Your task to perform on an android device: toggle javascript in the chrome app Image 0: 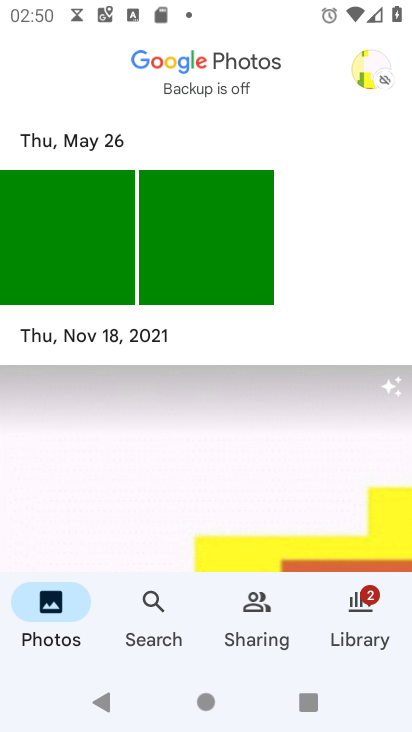
Step 0: press home button
Your task to perform on an android device: toggle javascript in the chrome app Image 1: 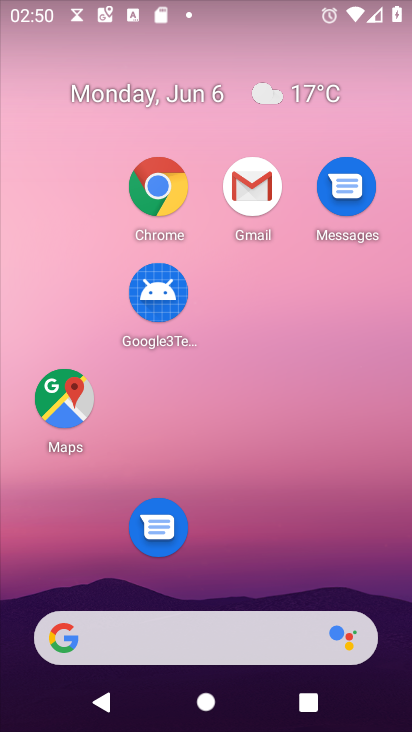
Step 1: click (162, 190)
Your task to perform on an android device: toggle javascript in the chrome app Image 2: 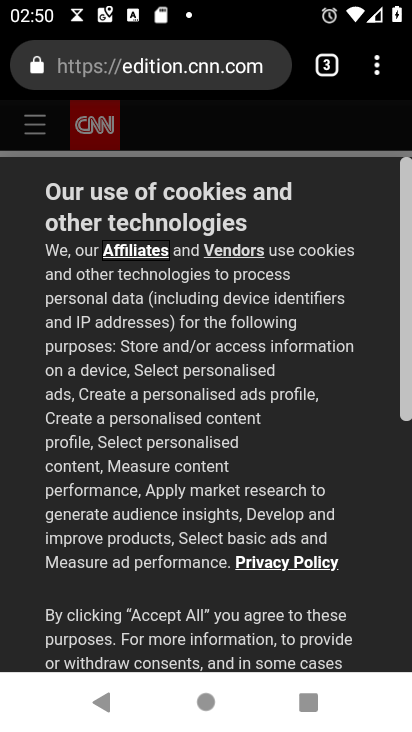
Step 2: click (370, 64)
Your task to perform on an android device: toggle javascript in the chrome app Image 3: 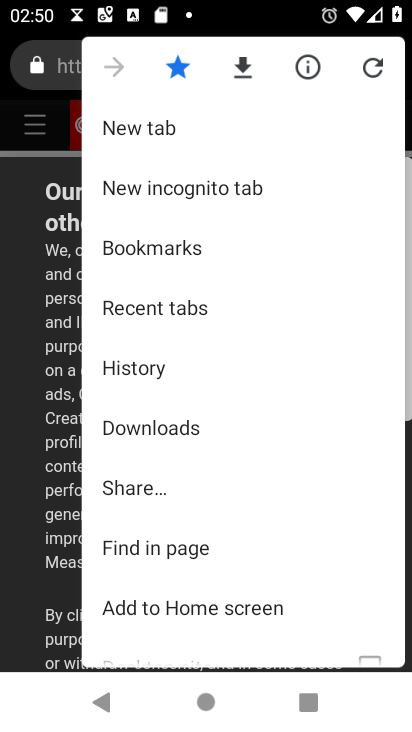
Step 3: drag from (299, 488) to (295, 204)
Your task to perform on an android device: toggle javascript in the chrome app Image 4: 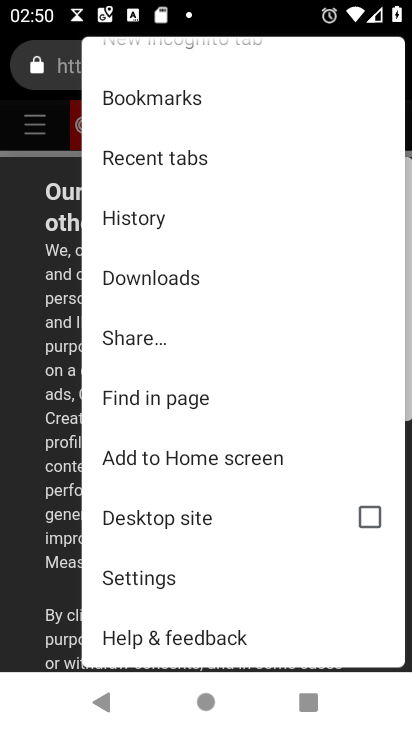
Step 4: click (121, 584)
Your task to perform on an android device: toggle javascript in the chrome app Image 5: 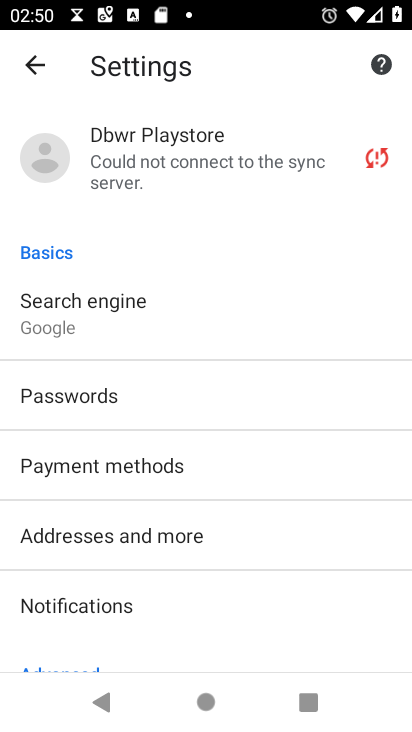
Step 5: click (275, 576)
Your task to perform on an android device: toggle javascript in the chrome app Image 6: 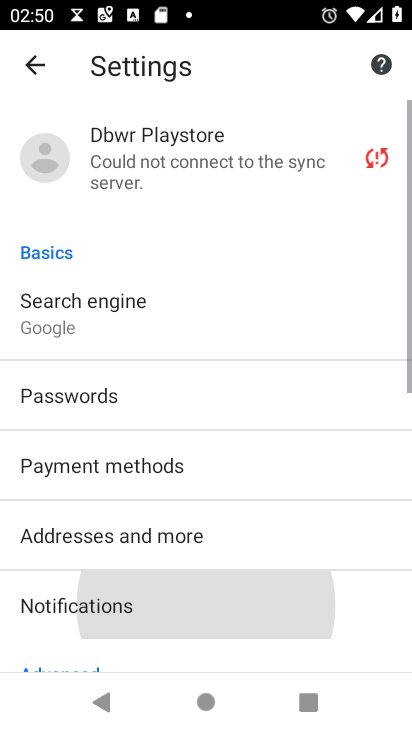
Step 6: drag from (275, 576) to (242, 188)
Your task to perform on an android device: toggle javascript in the chrome app Image 7: 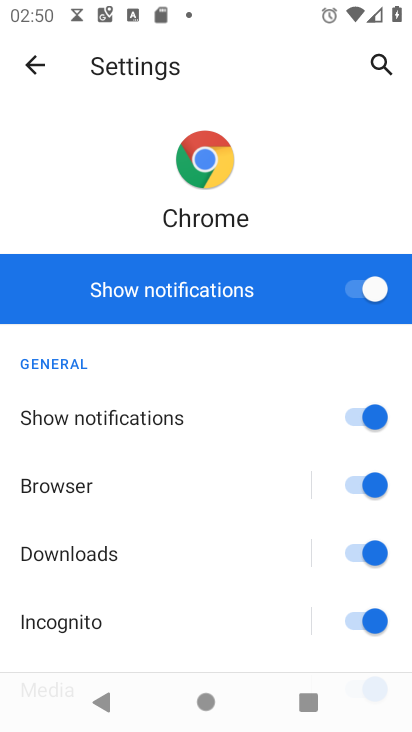
Step 7: click (30, 59)
Your task to perform on an android device: toggle javascript in the chrome app Image 8: 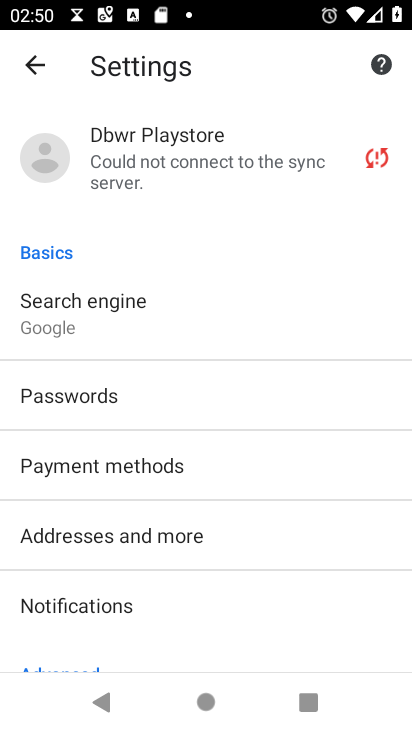
Step 8: drag from (293, 592) to (227, 131)
Your task to perform on an android device: toggle javascript in the chrome app Image 9: 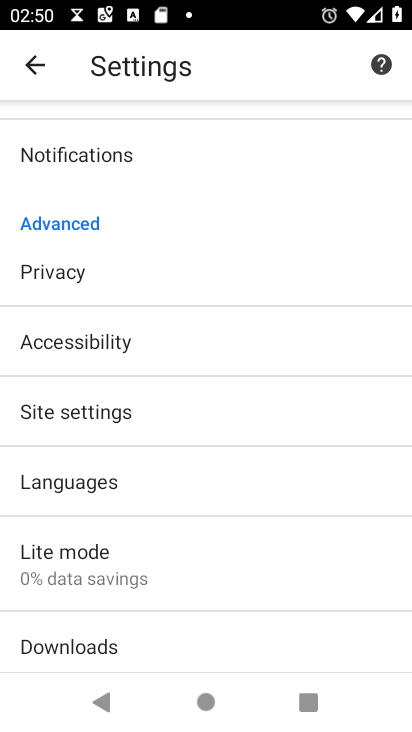
Step 9: click (102, 411)
Your task to perform on an android device: toggle javascript in the chrome app Image 10: 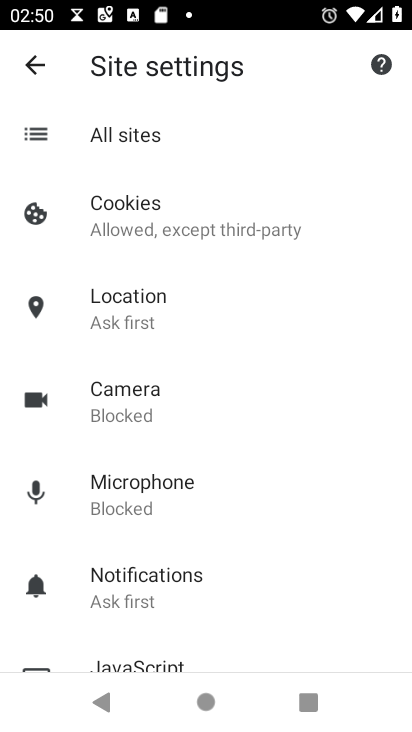
Step 10: click (200, 659)
Your task to perform on an android device: toggle javascript in the chrome app Image 11: 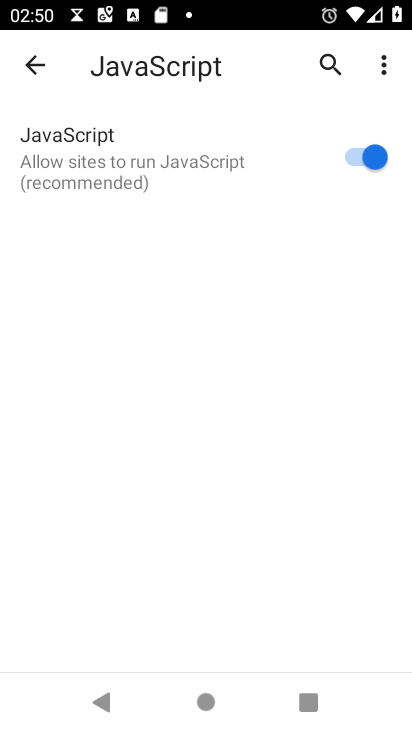
Step 11: click (348, 151)
Your task to perform on an android device: toggle javascript in the chrome app Image 12: 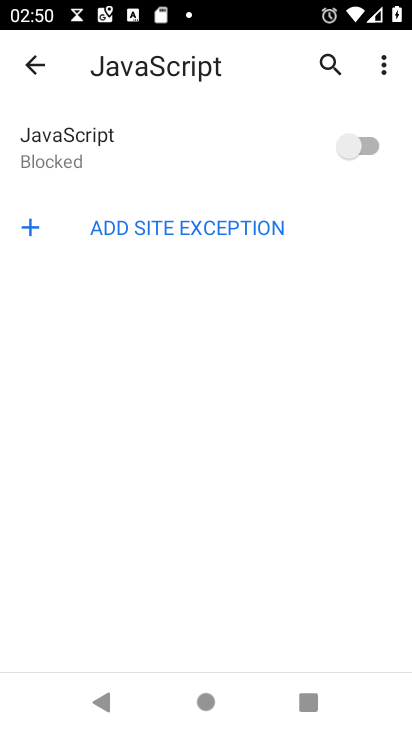
Step 12: task complete